Your task to perform on an android device: What's the news in Thailand? Image 0: 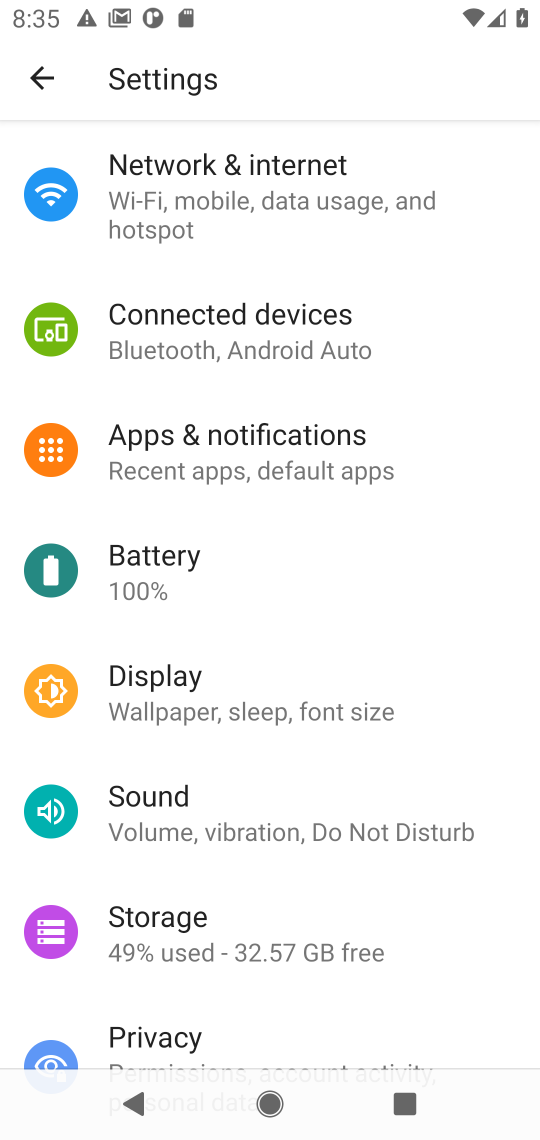
Step 0: press home button
Your task to perform on an android device: What's the news in Thailand? Image 1: 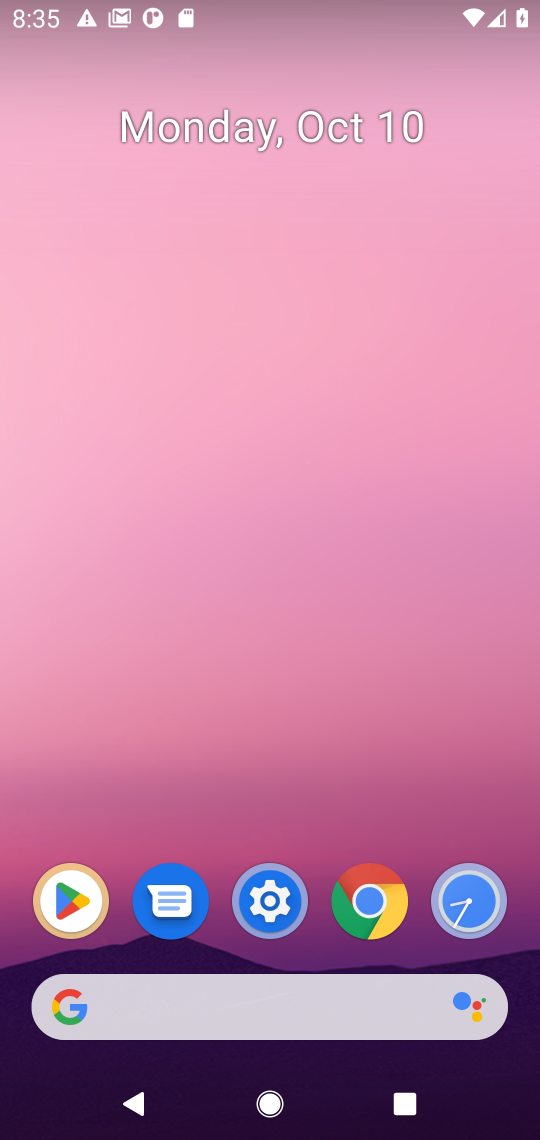
Step 1: click (295, 1005)
Your task to perform on an android device: What's the news in Thailand? Image 2: 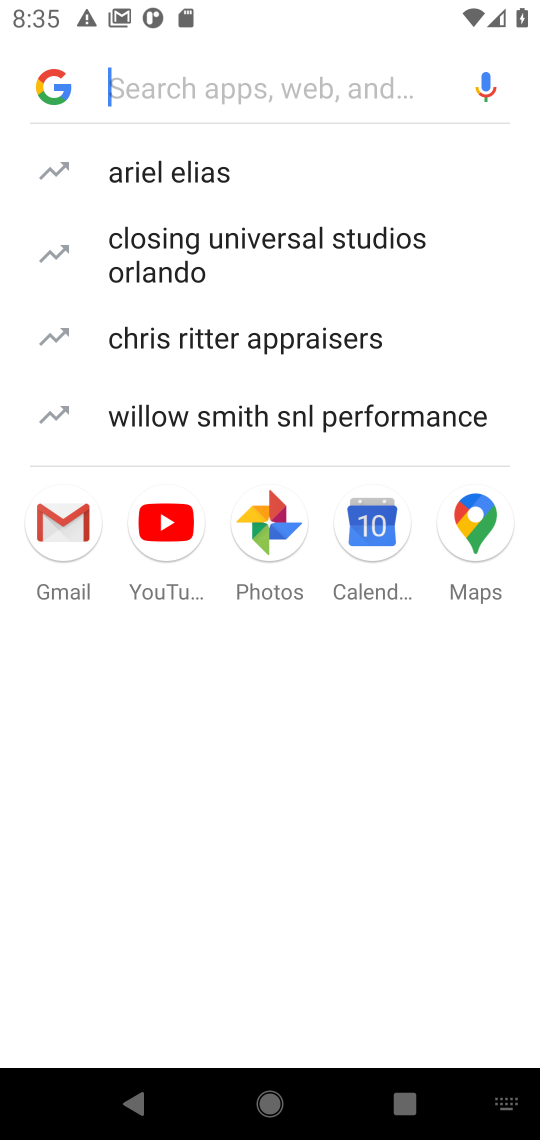
Step 2: type "What's the news in Thailand"
Your task to perform on an android device: What's the news in Thailand? Image 3: 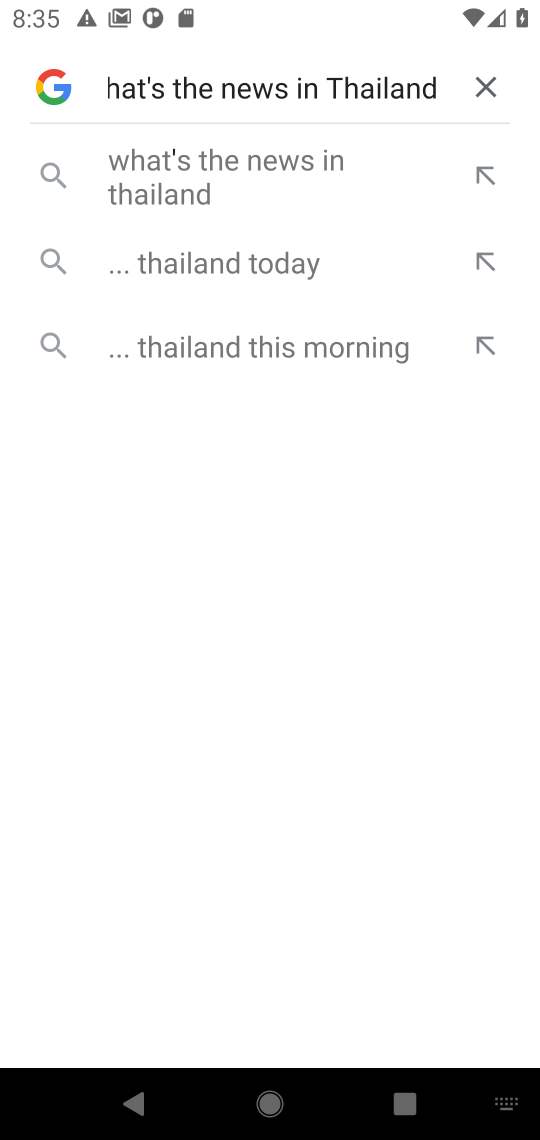
Step 3: press enter
Your task to perform on an android device: What's the news in Thailand? Image 4: 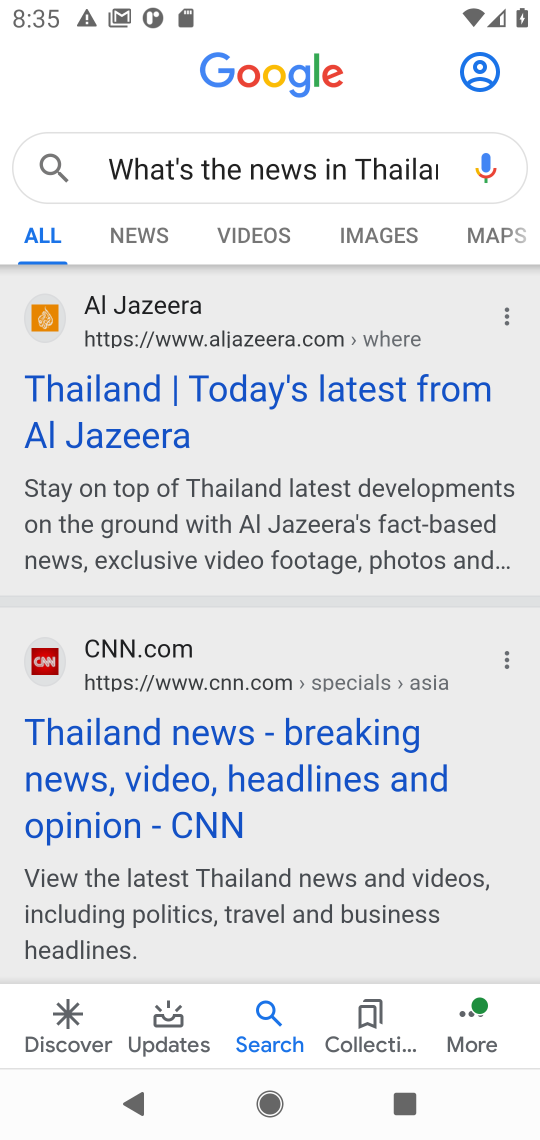
Step 4: click (273, 751)
Your task to perform on an android device: What's the news in Thailand? Image 5: 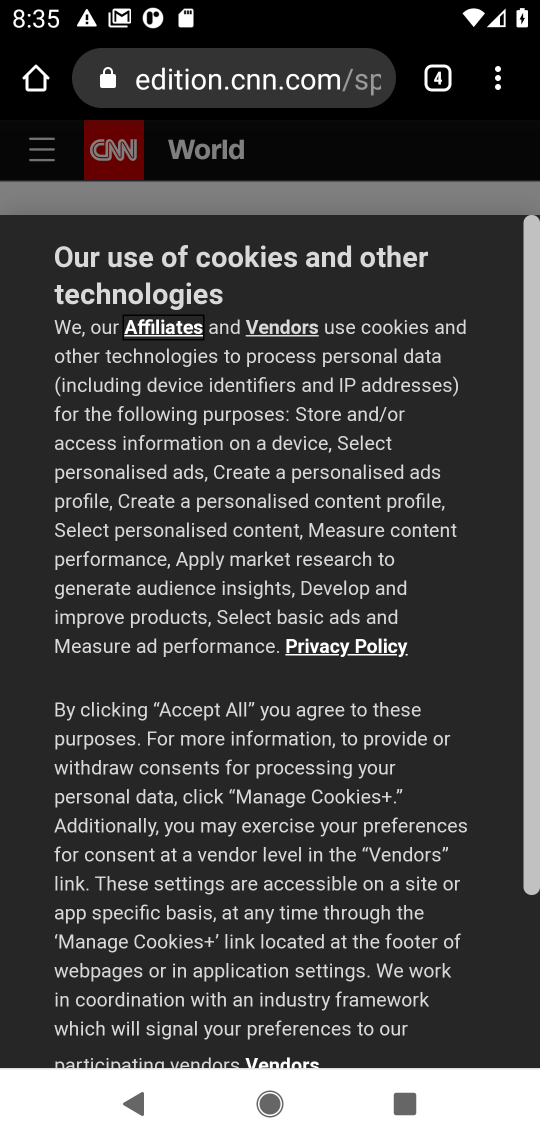
Step 5: drag from (366, 881) to (369, 452)
Your task to perform on an android device: What's the news in Thailand? Image 6: 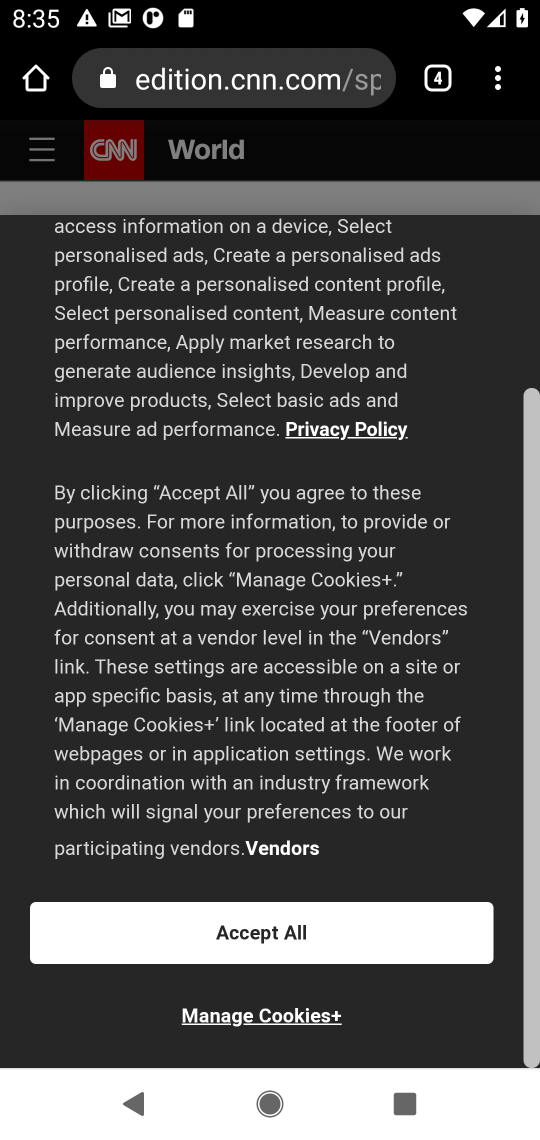
Step 6: click (327, 927)
Your task to perform on an android device: What's the news in Thailand? Image 7: 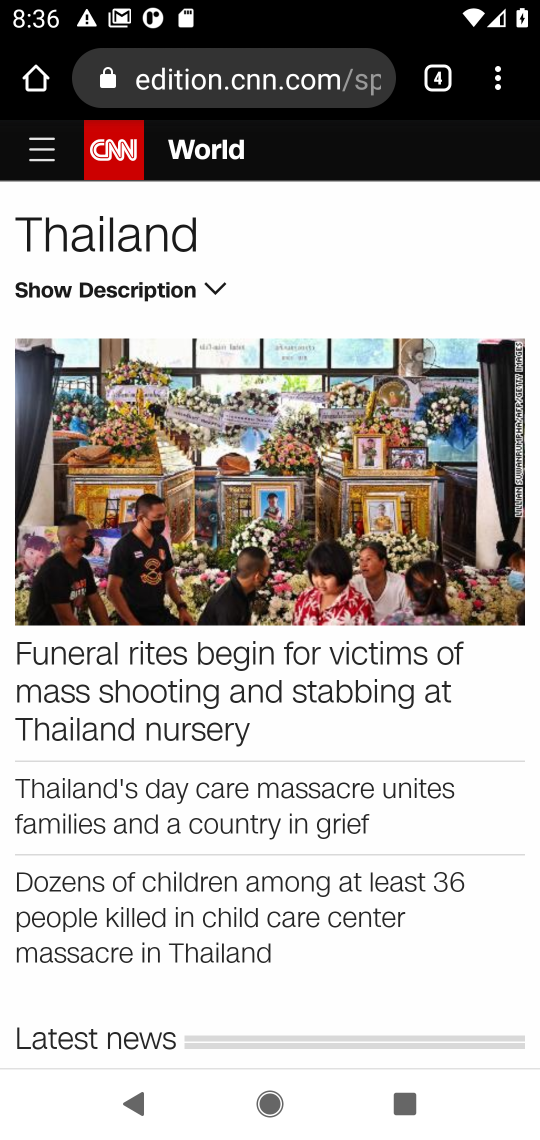
Step 7: task complete